Your task to perform on an android device: open app "Google Chat" (install if not already installed) Image 0: 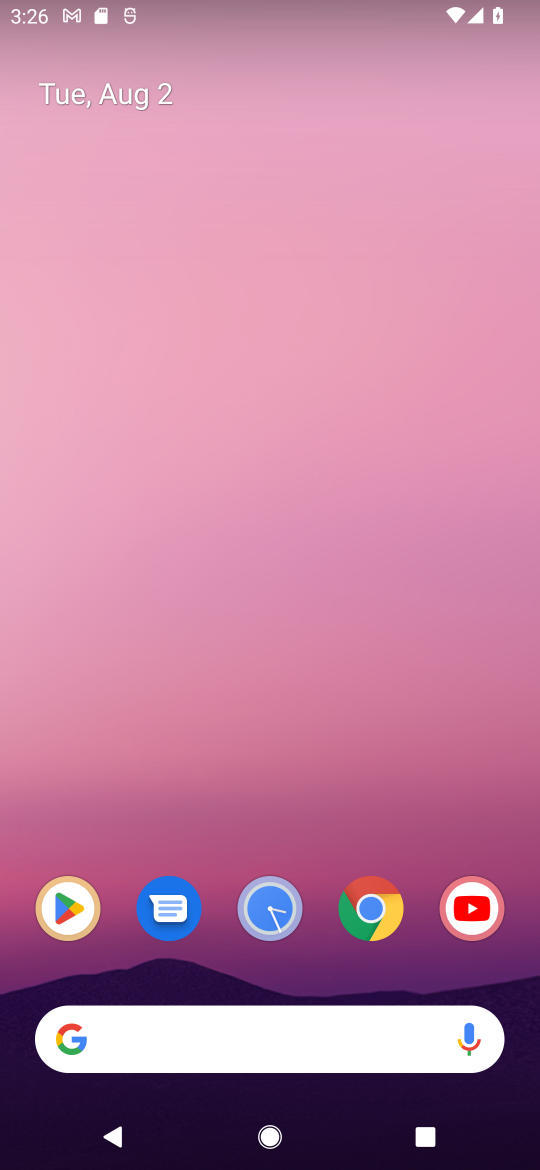
Step 0: click (67, 905)
Your task to perform on an android device: open app "Google Chat" (install if not already installed) Image 1: 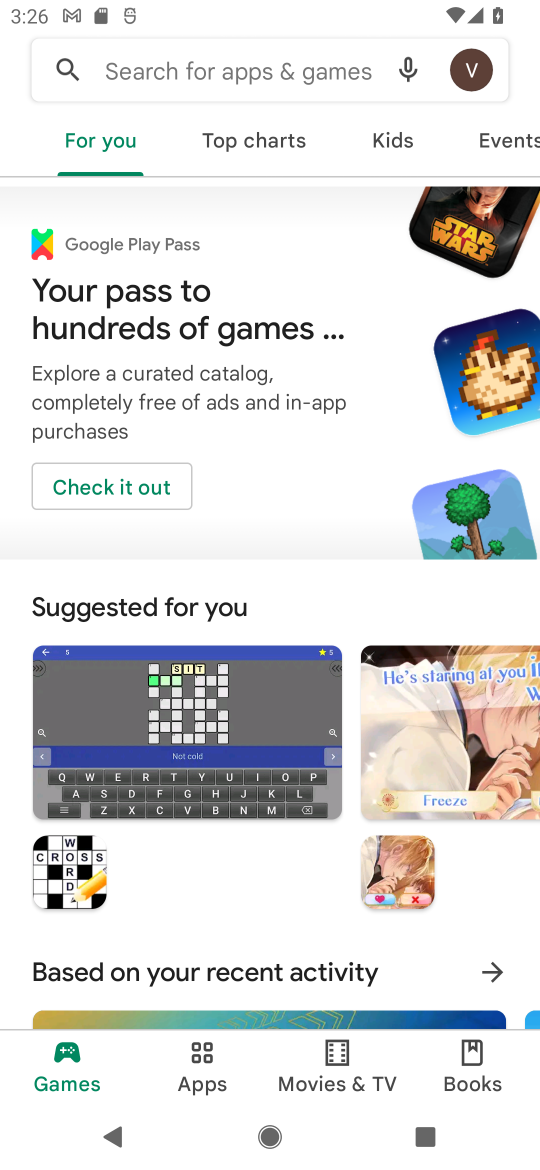
Step 1: click (211, 66)
Your task to perform on an android device: open app "Google Chat" (install if not already installed) Image 2: 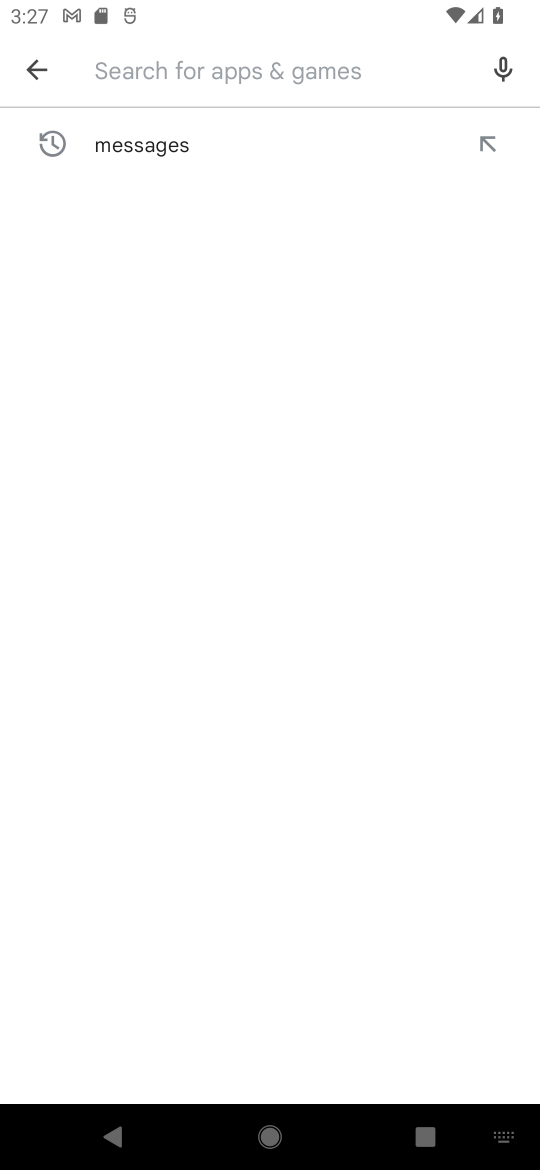
Step 2: type ""
Your task to perform on an android device: open app "Google Chat" (install if not already installed) Image 3: 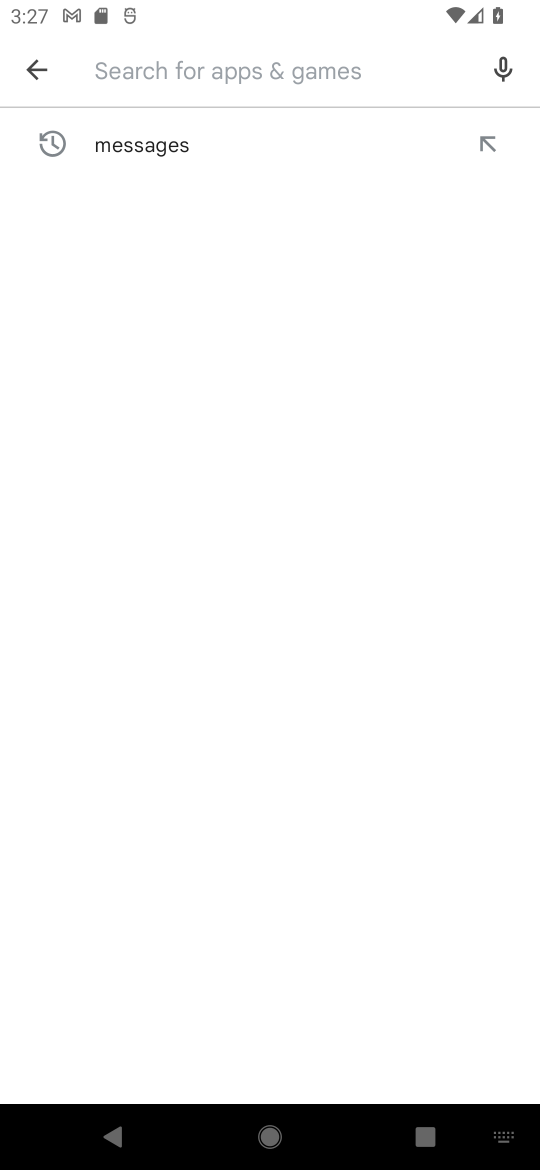
Step 3: type "Google Chat"
Your task to perform on an android device: open app "Google Chat" (install if not already installed) Image 4: 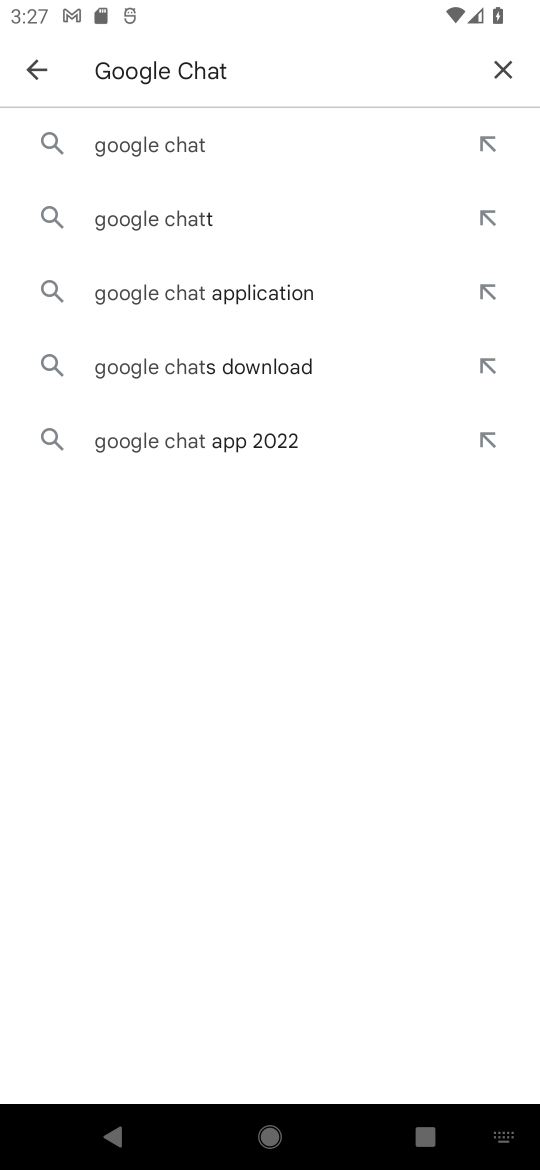
Step 4: click (183, 128)
Your task to perform on an android device: open app "Google Chat" (install if not already installed) Image 5: 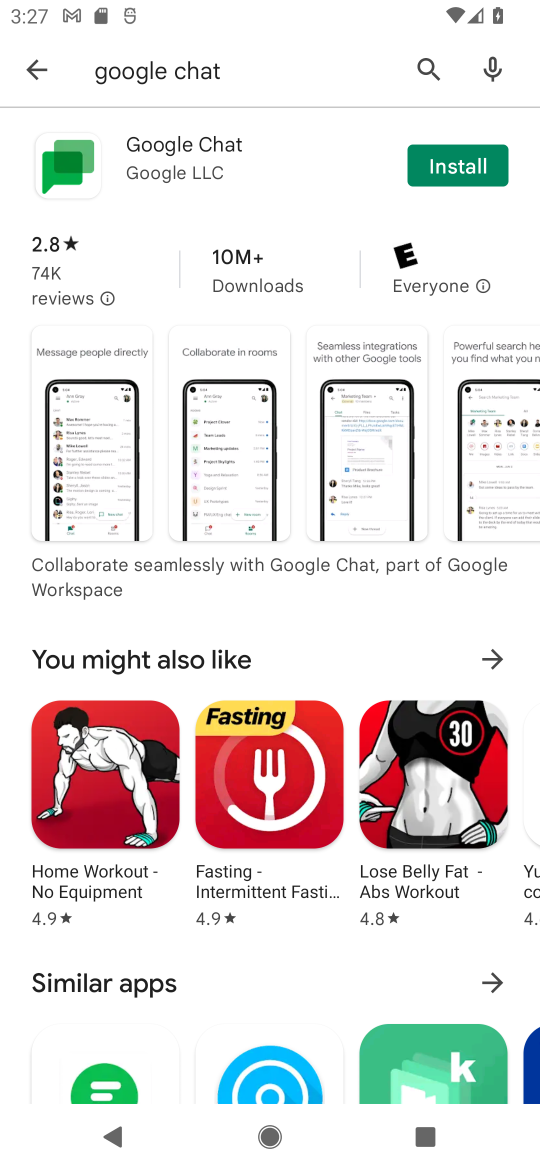
Step 5: click (455, 165)
Your task to perform on an android device: open app "Google Chat" (install if not already installed) Image 6: 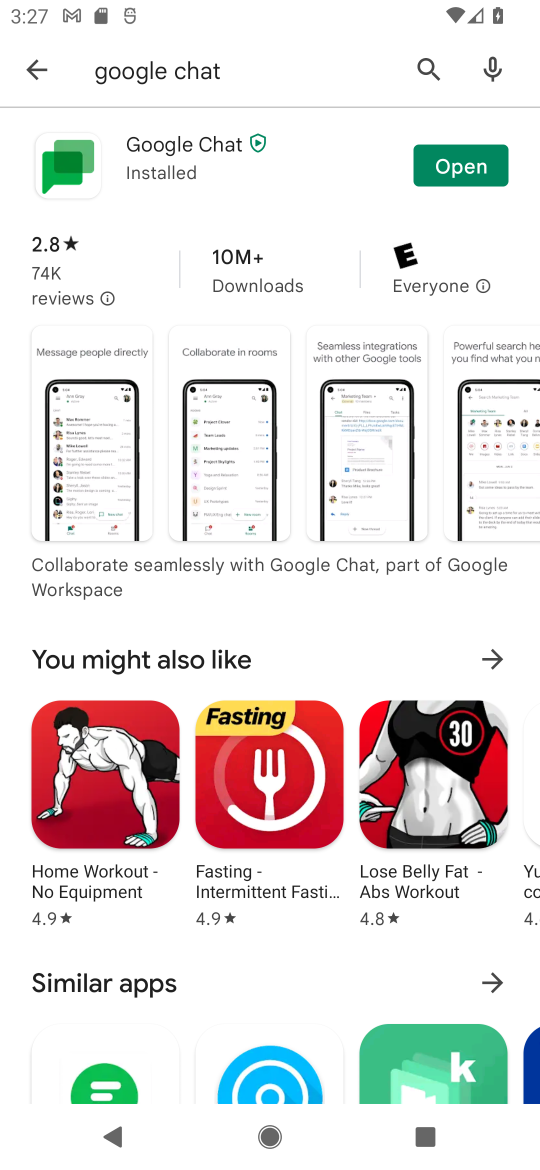
Step 6: click (463, 164)
Your task to perform on an android device: open app "Google Chat" (install if not already installed) Image 7: 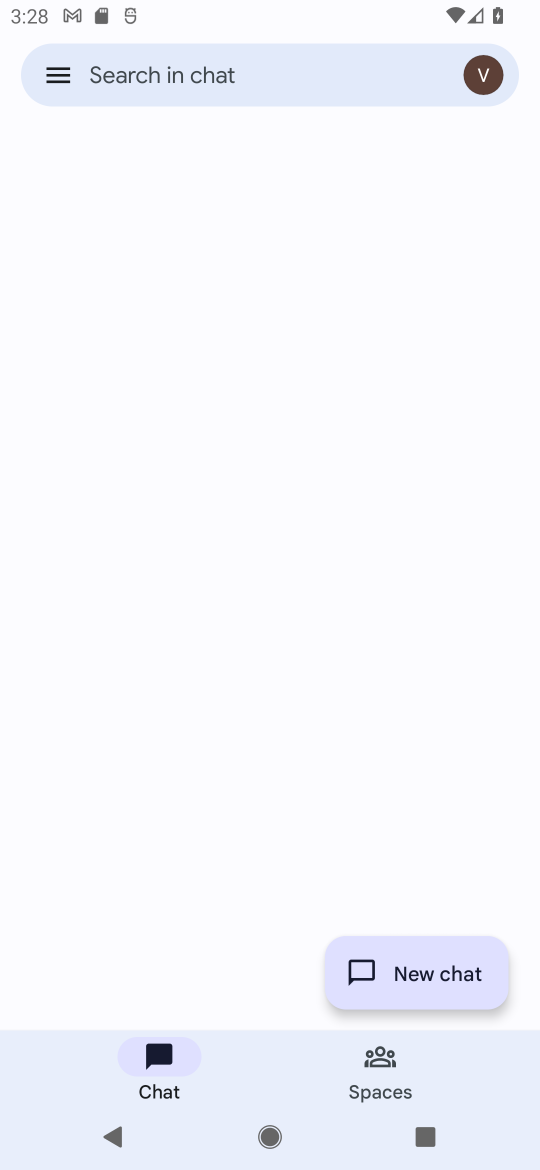
Step 7: click (382, 1052)
Your task to perform on an android device: open app "Google Chat" (install if not already installed) Image 8: 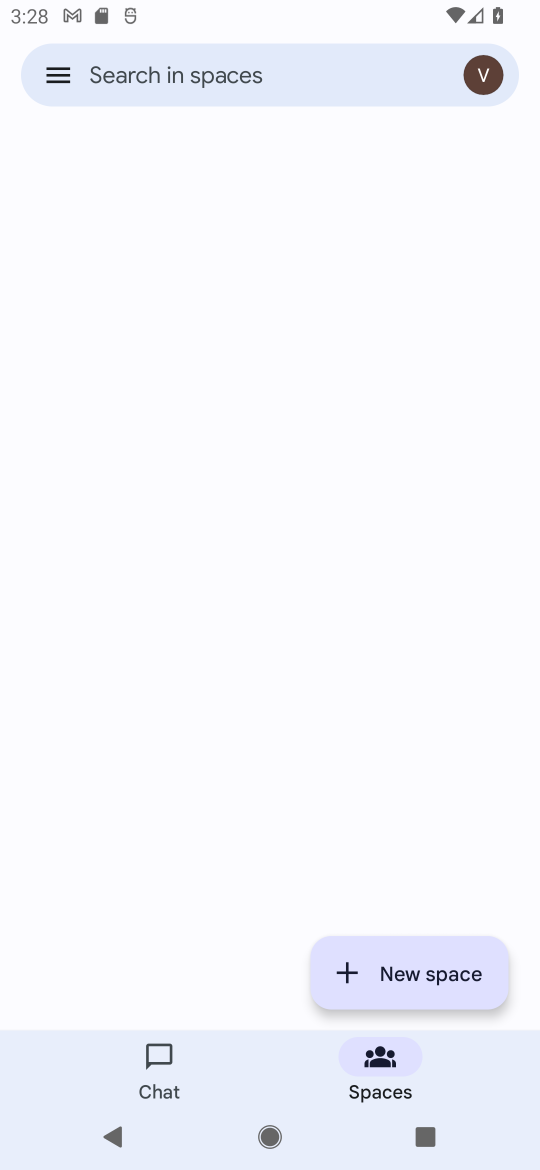
Step 8: task complete